Your task to perform on an android device: toggle priority inbox in the gmail app Image 0: 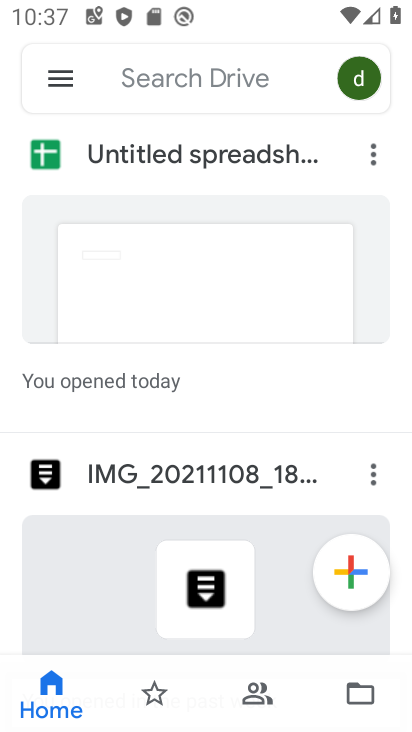
Step 0: drag from (310, 307) to (404, 3)
Your task to perform on an android device: toggle priority inbox in the gmail app Image 1: 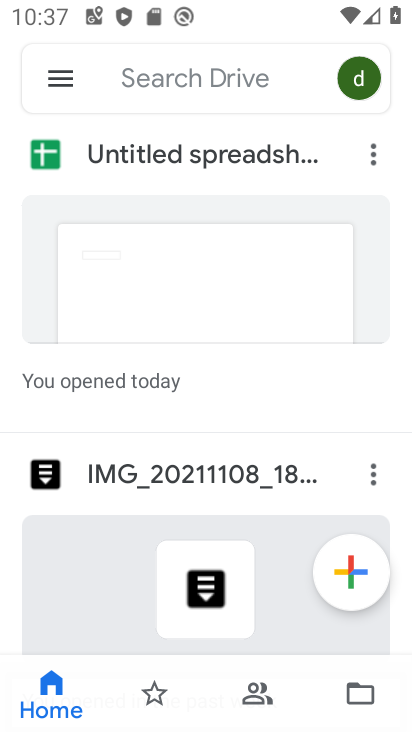
Step 1: press home button
Your task to perform on an android device: toggle priority inbox in the gmail app Image 2: 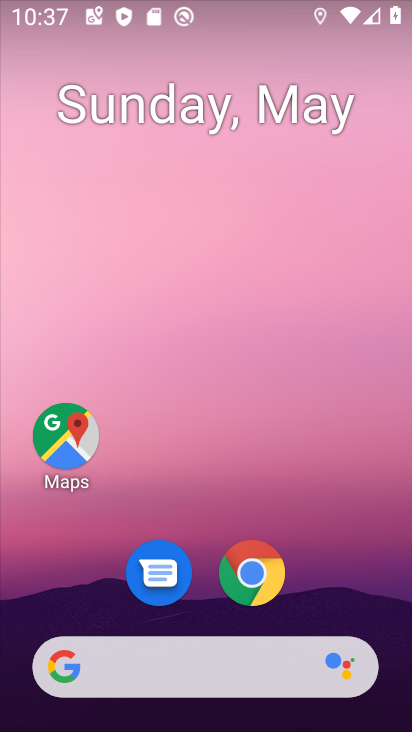
Step 2: drag from (221, 583) to (235, 285)
Your task to perform on an android device: toggle priority inbox in the gmail app Image 3: 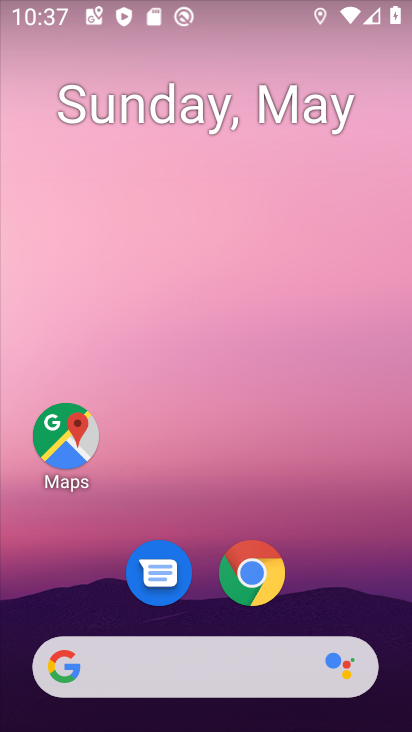
Step 3: drag from (199, 604) to (173, 195)
Your task to perform on an android device: toggle priority inbox in the gmail app Image 4: 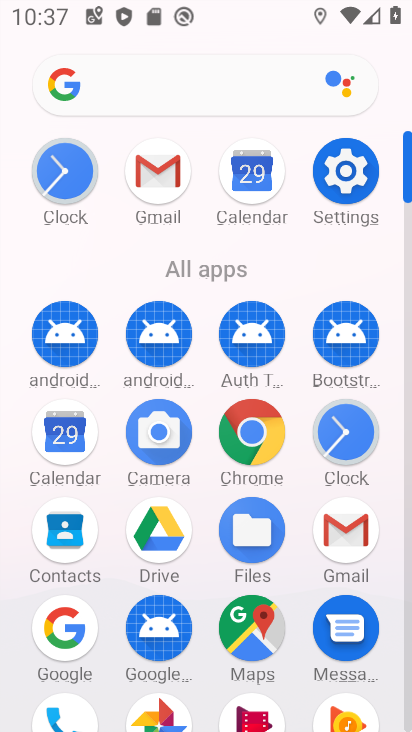
Step 4: click (160, 186)
Your task to perform on an android device: toggle priority inbox in the gmail app Image 5: 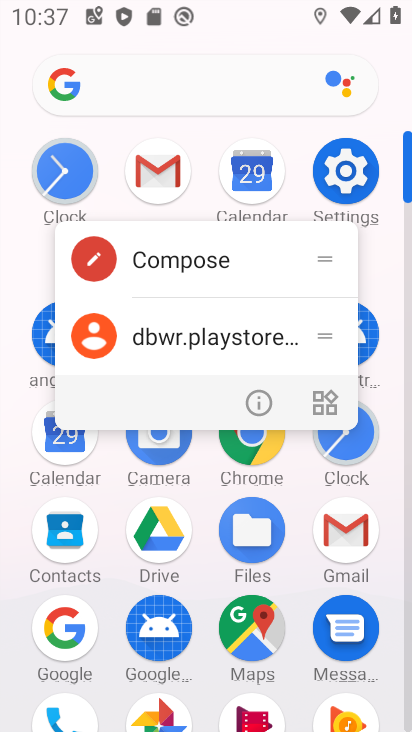
Step 5: click (157, 183)
Your task to perform on an android device: toggle priority inbox in the gmail app Image 6: 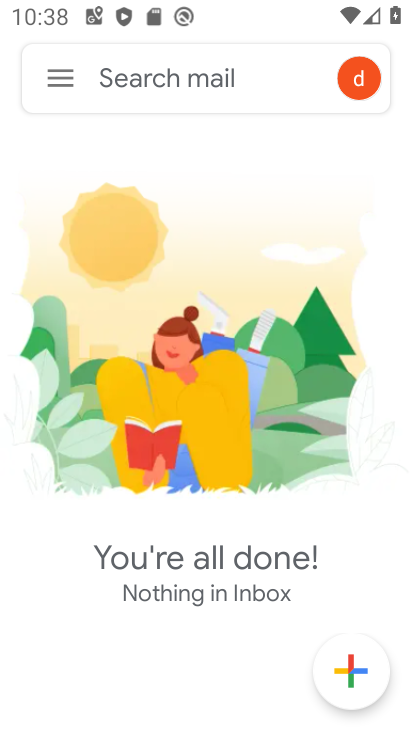
Step 6: click (60, 77)
Your task to perform on an android device: toggle priority inbox in the gmail app Image 7: 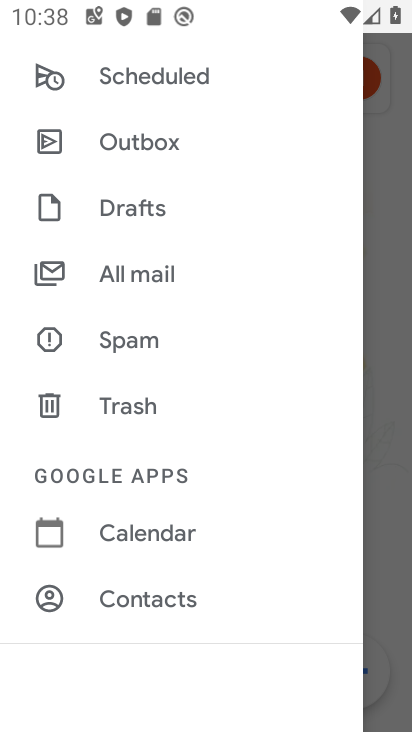
Step 7: drag from (170, 557) to (211, 264)
Your task to perform on an android device: toggle priority inbox in the gmail app Image 8: 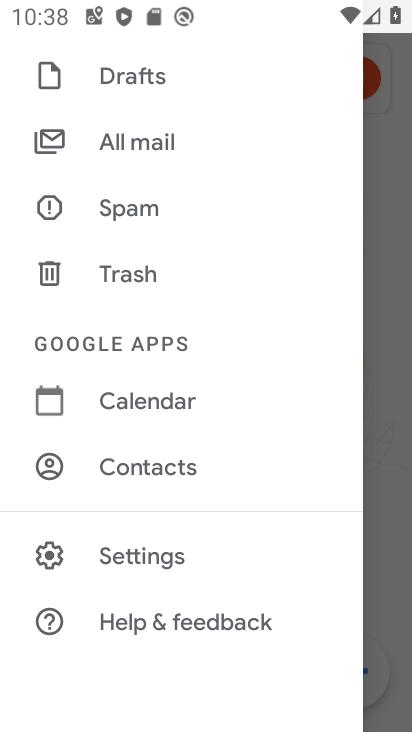
Step 8: click (142, 554)
Your task to perform on an android device: toggle priority inbox in the gmail app Image 9: 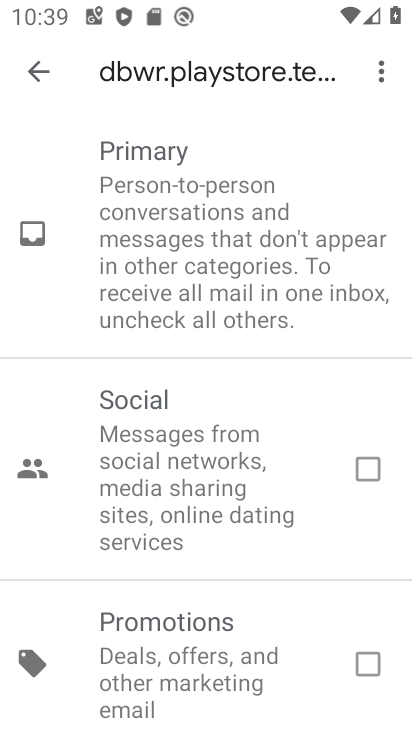
Step 9: click (28, 72)
Your task to perform on an android device: toggle priority inbox in the gmail app Image 10: 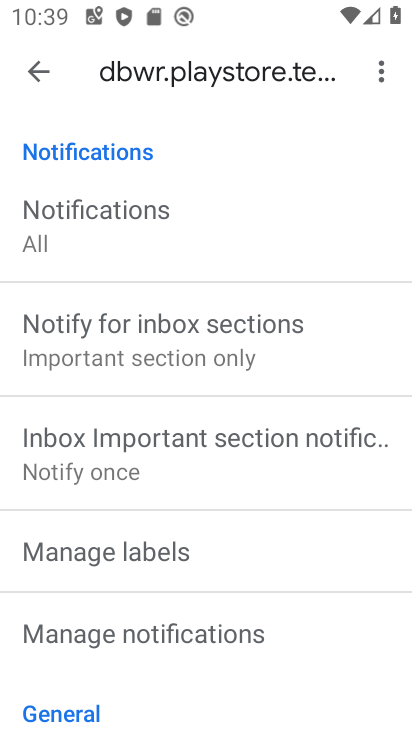
Step 10: drag from (233, 232) to (254, 521)
Your task to perform on an android device: toggle priority inbox in the gmail app Image 11: 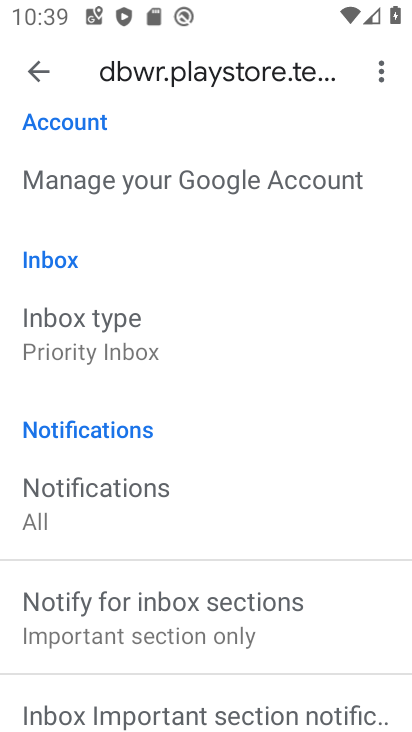
Step 11: click (120, 340)
Your task to perform on an android device: toggle priority inbox in the gmail app Image 12: 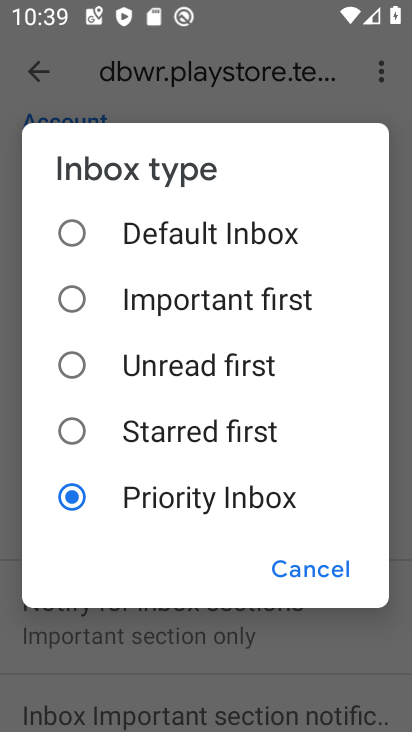
Step 12: task complete